Your task to perform on an android device: add a contact in the contacts app Image 0: 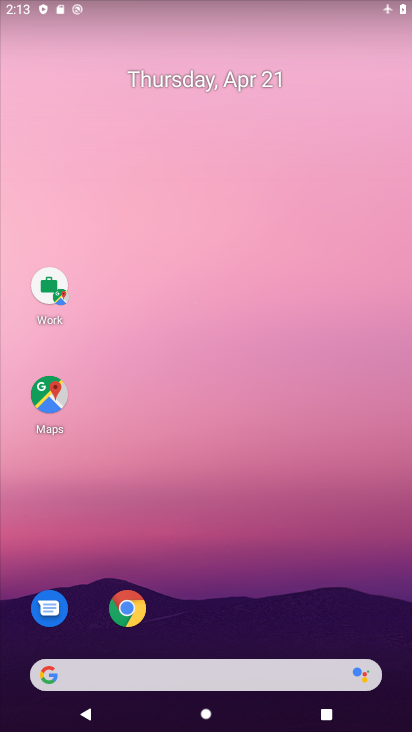
Step 0: click (221, 211)
Your task to perform on an android device: add a contact in the contacts app Image 1: 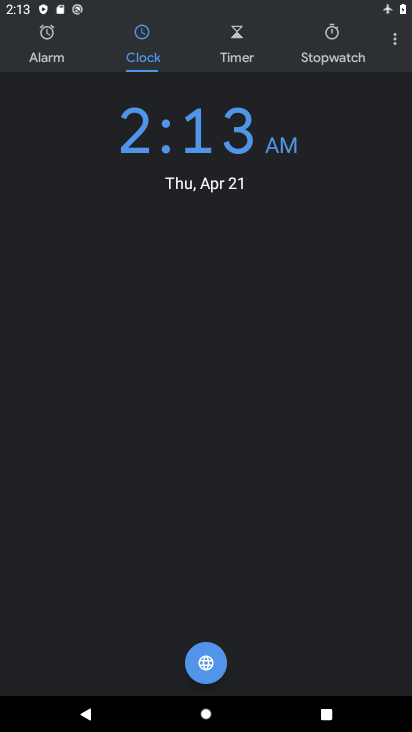
Step 1: press home button
Your task to perform on an android device: add a contact in the contacts app Image 2: 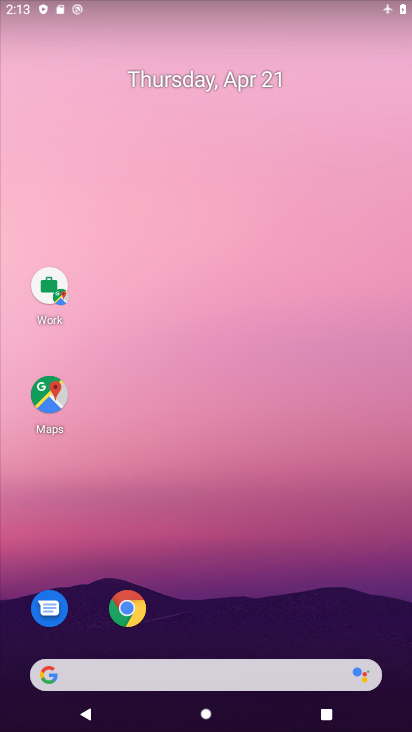
Step 2: drag from (266, 554) to (159, 234)
Your task to perform on an android device: add a contact in the contacts app Image 3: 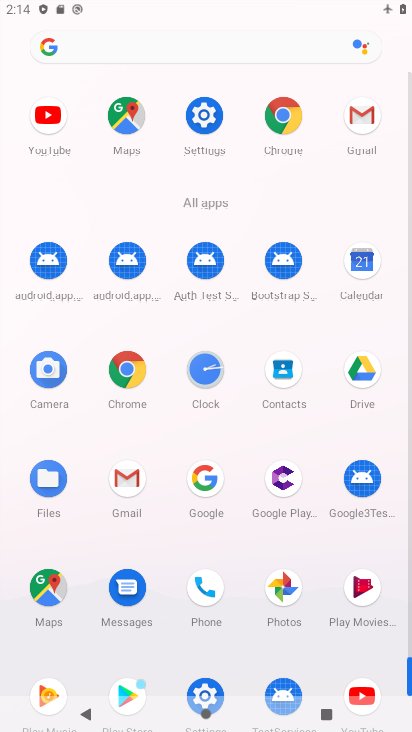
Step 3: click (285, 384)
Your task to perform on an android device: add a contact in the contacts app Image 4: 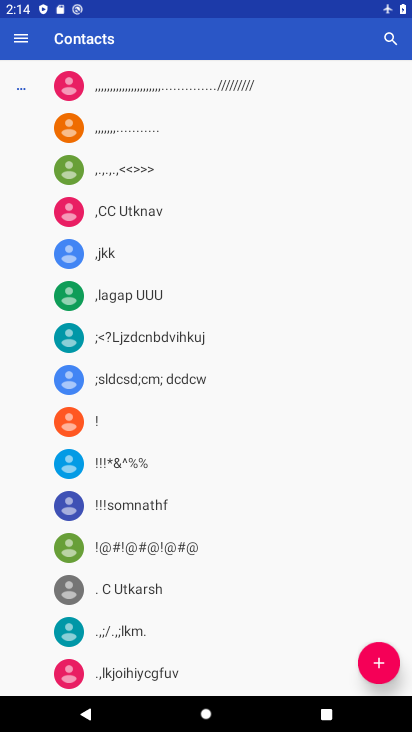
Step 4: click (389, 668)
Your task to perform on an android device: add a contact in the contacts app Image 5: 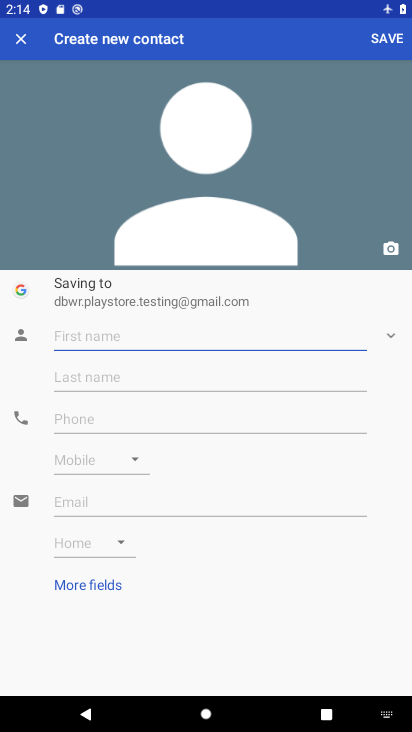
Step 5: click (92, 716)
Your task to perform on an android device: add a contact in the contacts app Image 6: 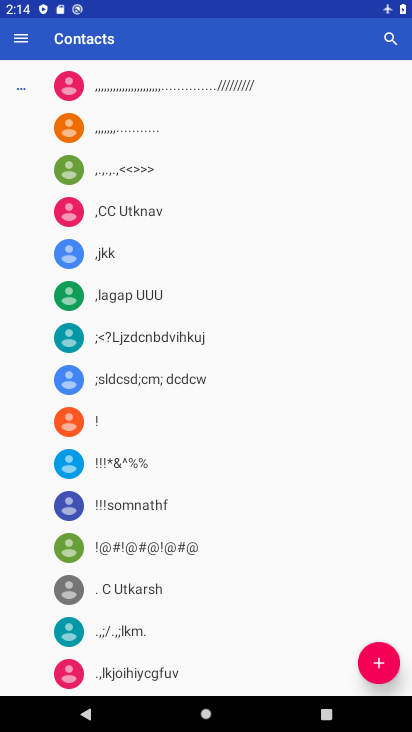
Step 6: click (370, 671)
Your task to perform on an android device: add a contact in the contacts app Image 7: 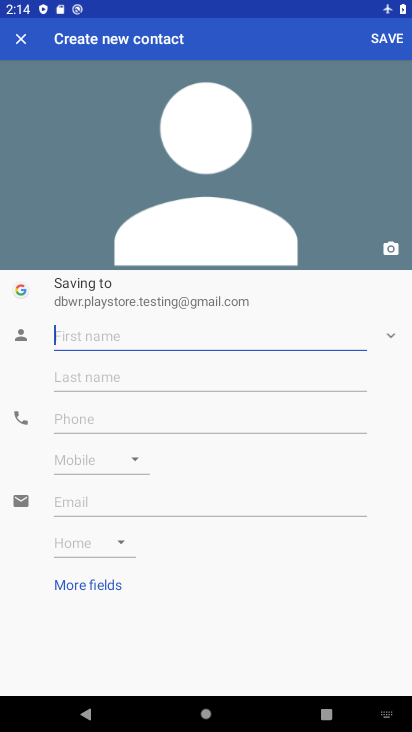
Step 7: click (128, 338)
Your task to perform on an android device: add a contact in the contacts app Image 8: 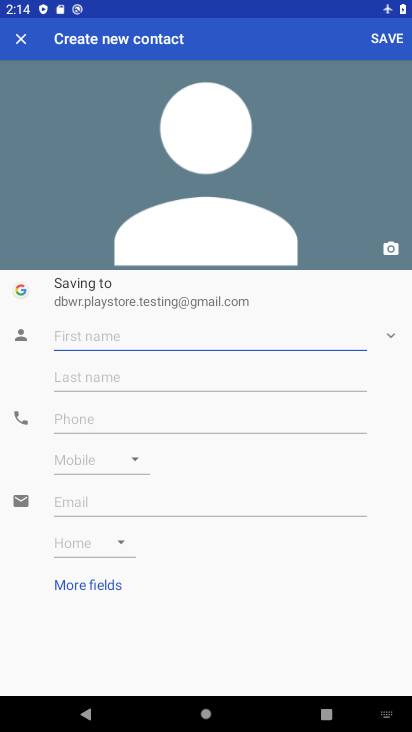
Step 8: type "Raghu"
Your task to perform on an android device: add a contact in the contacts app Image 9: 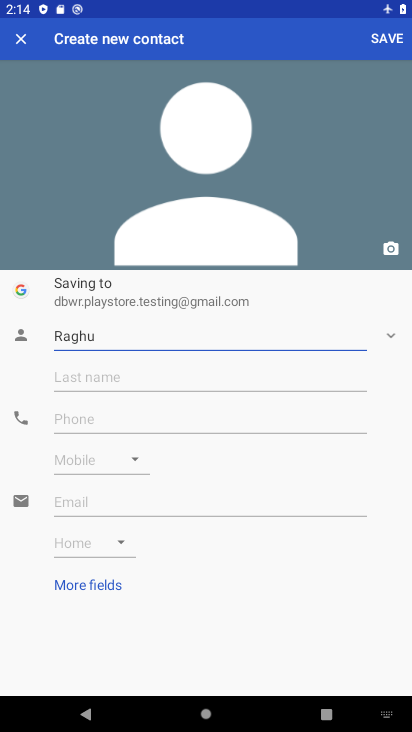
Step 9: click (212, 371)
Your task to perform on an android device: add a contact in the contacts app Image 10: 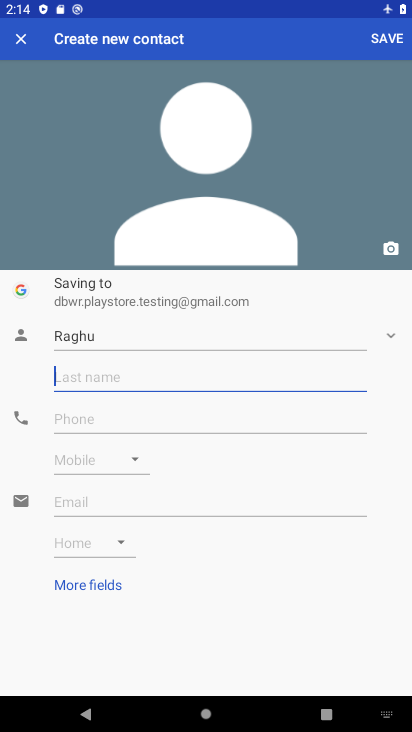
Step 10: type "Raj"
Your task to perform on an android device: add a contact in the contacts app Image 11: 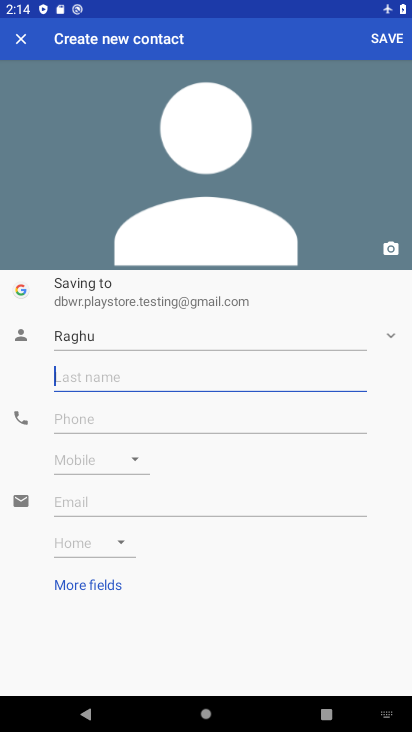
Step 11: click (91, 422)
Your task to perform on an android device: add a contact in the contacts app Image 12: 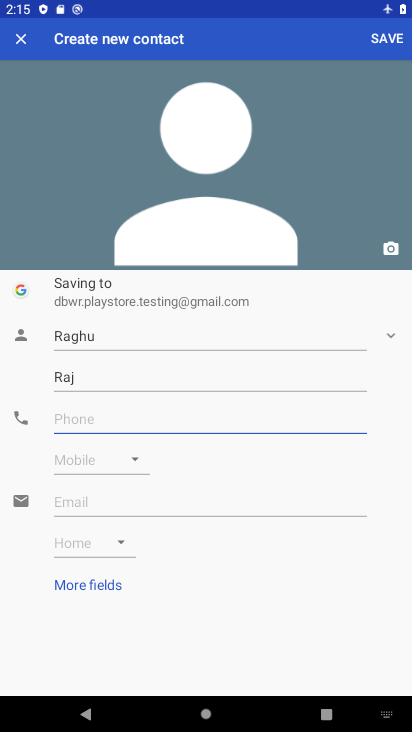
Step 12: type "9090900909"
Your task to perform on an android device: add a contact in the contacts app Image 13: 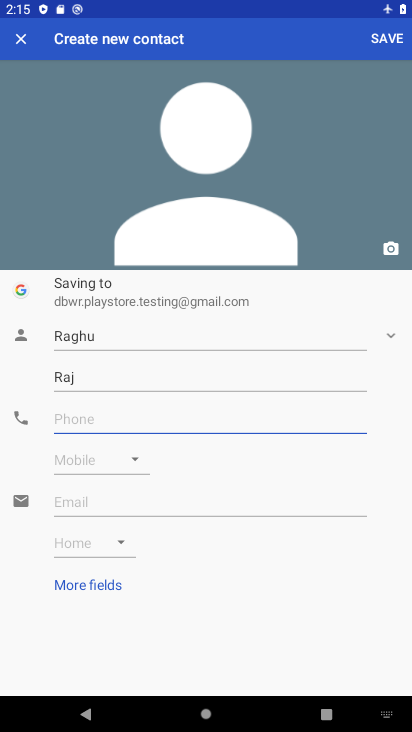
Step 13: click (244, 462)
Your task to perform on an android device: add a contact in the contacts app Image 14: 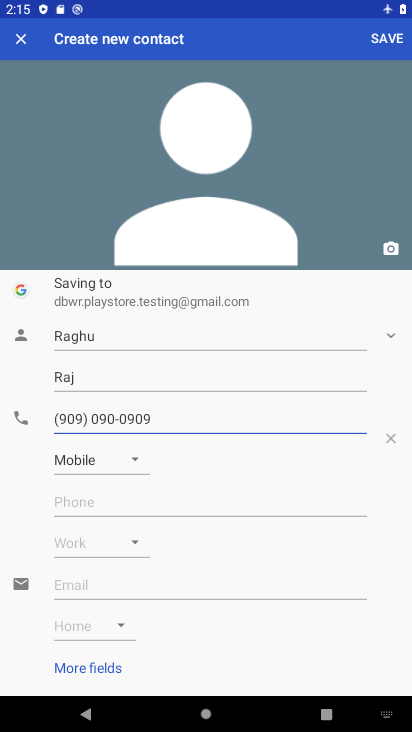
Step 14: click (382, 40)
Your task to perform on an android device: add a contact in the contacts app Image 15: 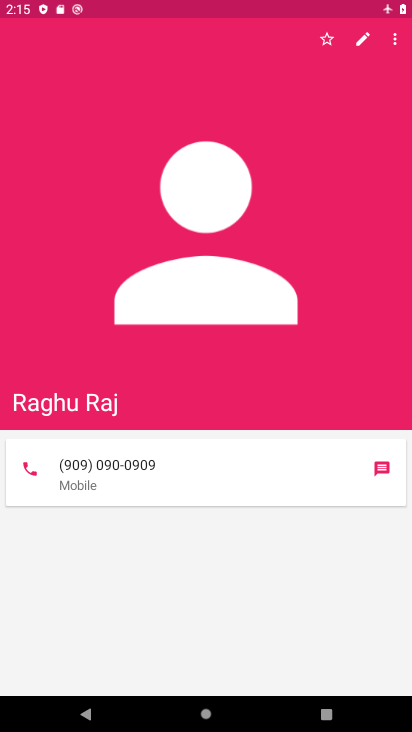
Step 15: task complete